Your task to perform on an android device: Go to notification settings Image 0: 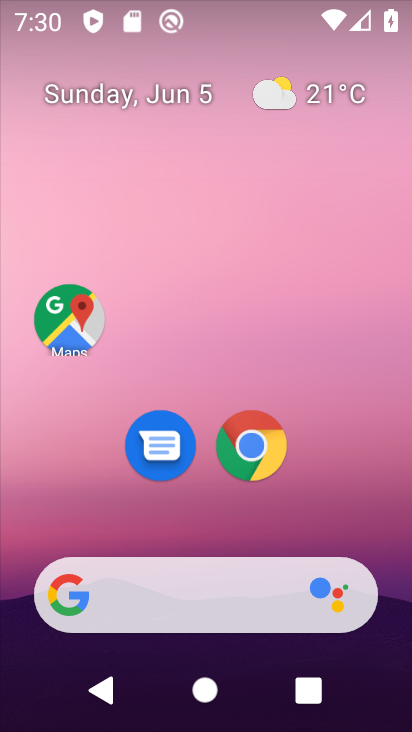
Step 0: drag from (346, 493) to (256, 7)
Your task to perform on an android device: Go to notification settings Image 1: 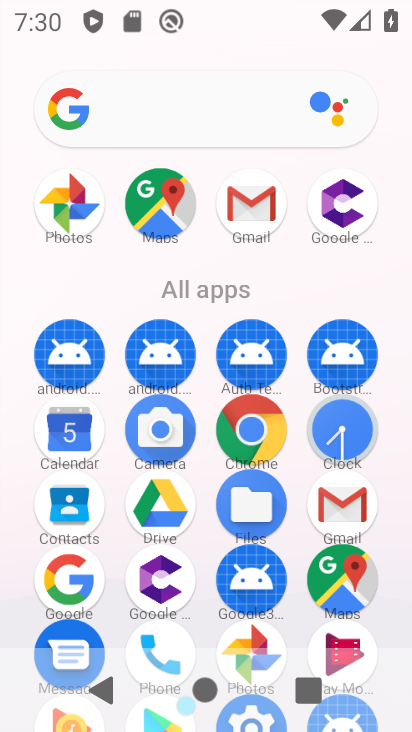
Step 1: drag from (113, 619) to (143, 173)
Your task to perform on an android device: Go to notification settings Image 2: 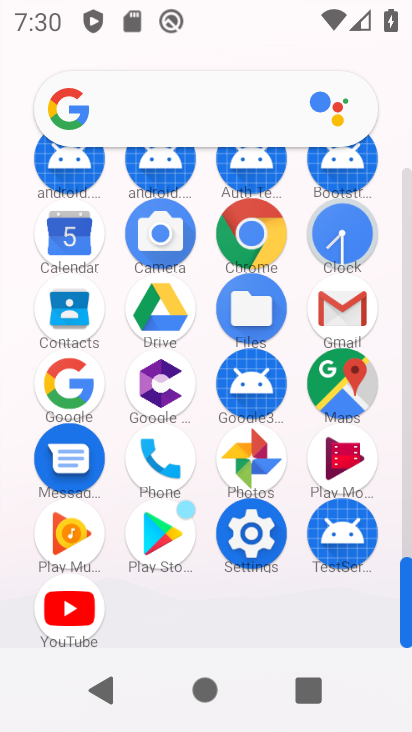
Step 2: click (242, 526)
Your task to perform on an android device: Go to notification settings Image 3: 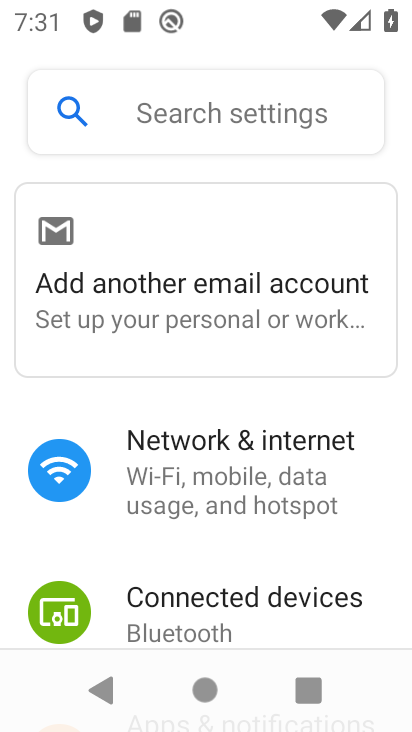
Step 3: drag from (82, 550) to (87, 149)
Your task to perform on an android device: Go to notification settings Image 4: 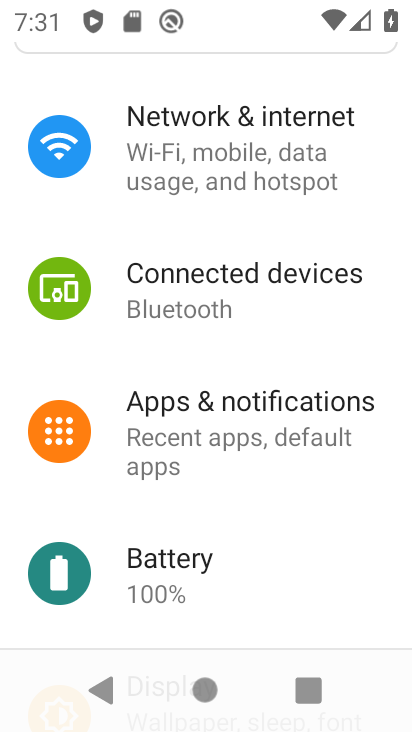
Step 4: click (186, 410)
Your task to perform on an android device: Go to notification settings Image 5: 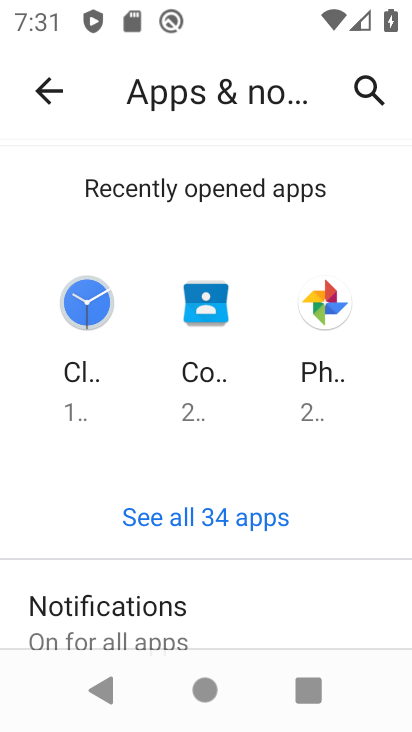
Step 5: task complete